Your task to perform on an android device: Turn on the flashlight Image 0: 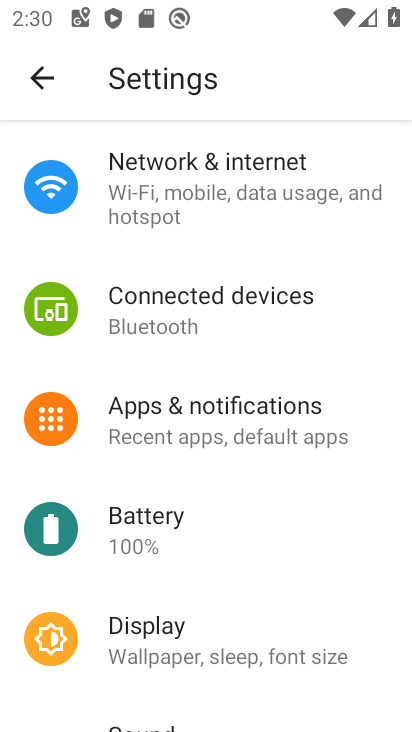
Step 0: drag from (233, 169) to (218, 709)
Your task to perform on an android device: Turn on the flashlight Image 1: 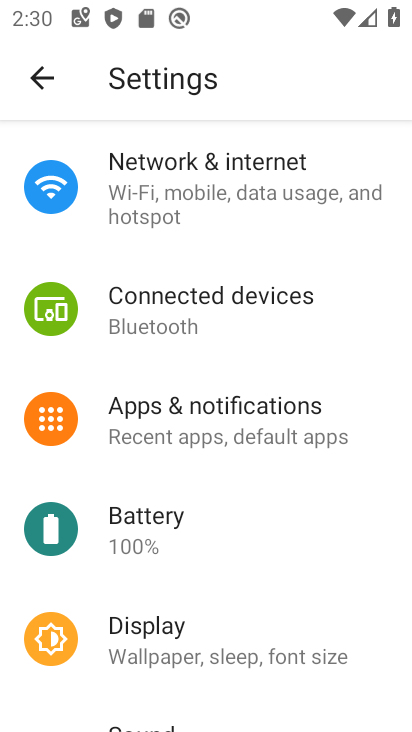
Step 1: drag from (160, 171) to (173, 726)
Your task to perform on an android device: Turn on the flashlight Image 2: 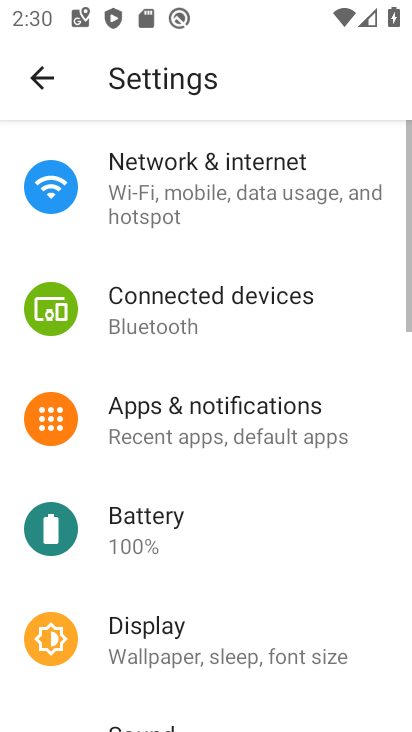
Step 2: drag from (228, 234) to (188, 625)
Your task to perform on an android device: Turn on the flashlight Image 3: 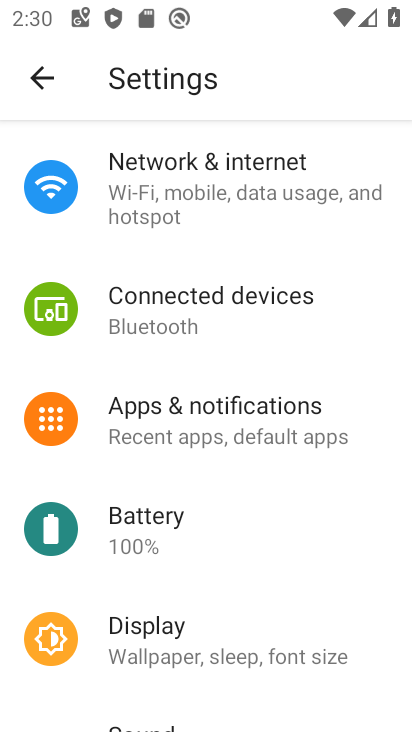
Step 3: click (41, 75)
Your task to perform on an android device: Turn on the flashlight Image 4: 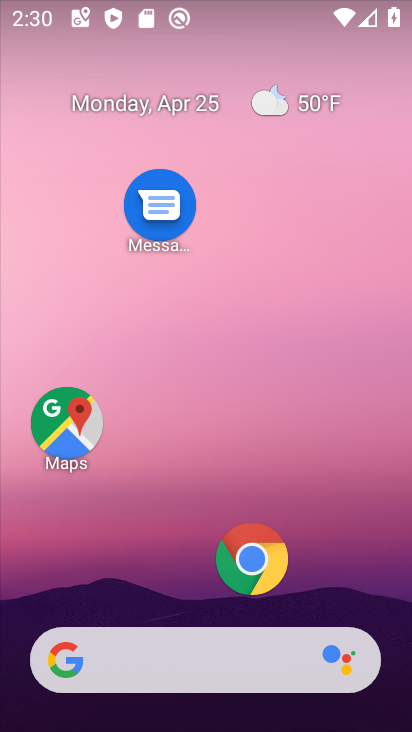
Step 4: drag from (168, 505) to (331, 8)
Your task to perform on an android device: Turn on the flashlight Image 5: 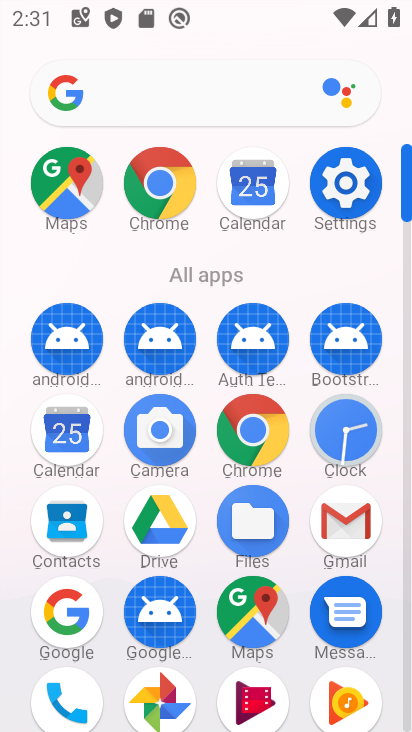
Step 5: click (349, 291)
Your task to perform on an android device: Turn on the flashlight Image 6: 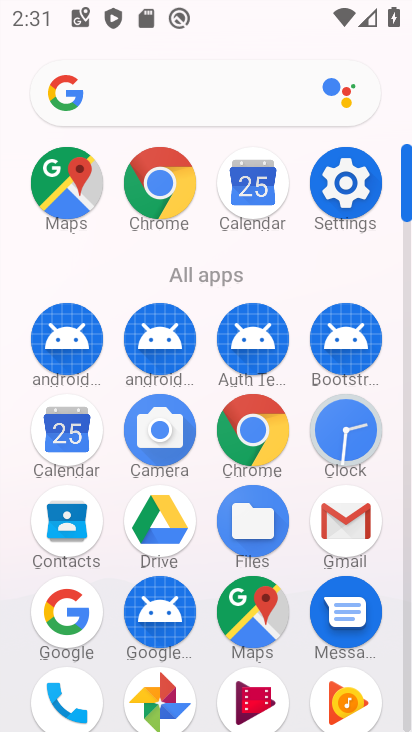
Step 6: click (330, 183)
Your task to perform on an android device: Turn on the flashlight Image 7: 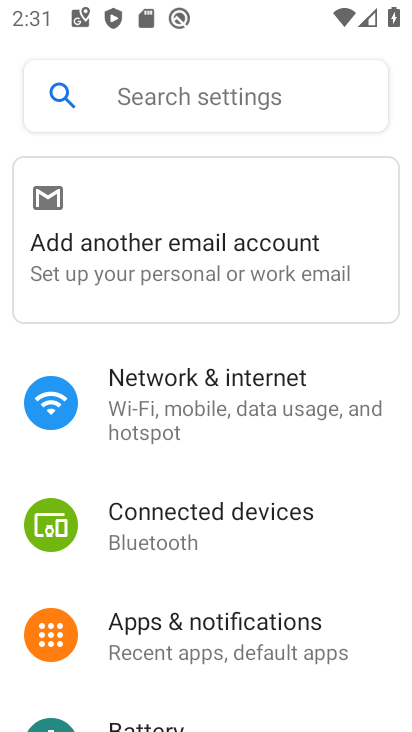
Step 7: click (279, 97)
Your task to perform on an android device: Turn on the flashlight Image 8: 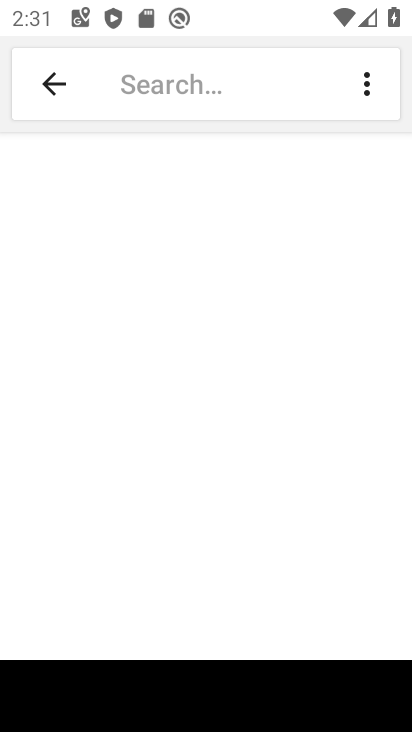
Step 8: type "flashlight"
Your task to perform on an android device: Turn on the flashlight Image 9: 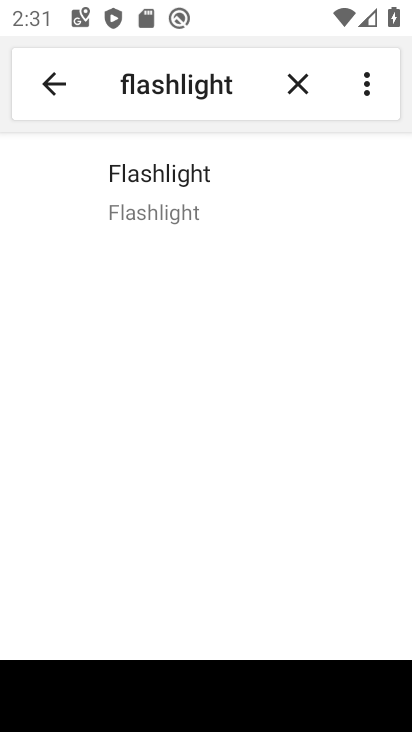
Step 9: click (167, 223)
Your task to perform on an android device: Turn on the flashlight Image 10: 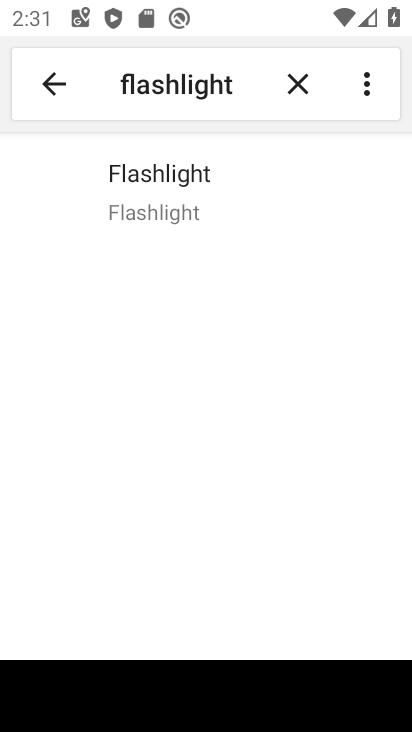
Step 10: click (170, 200)
Your task to perform on an android device: Turn on the flashlight Image 11: 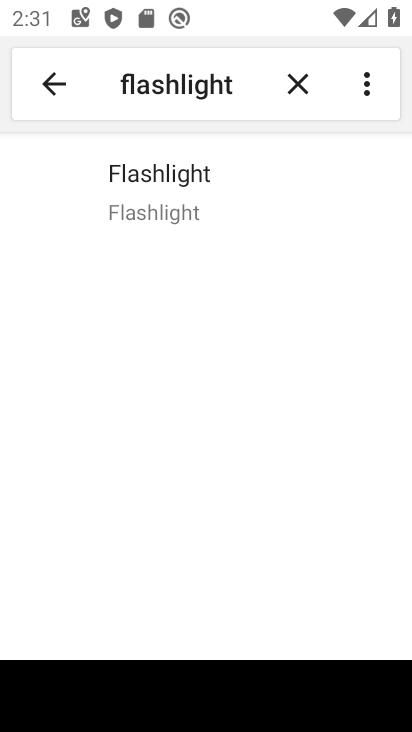
Step 11: task complete